Your task to perform on an android device: change the clock display to digital Image 0: 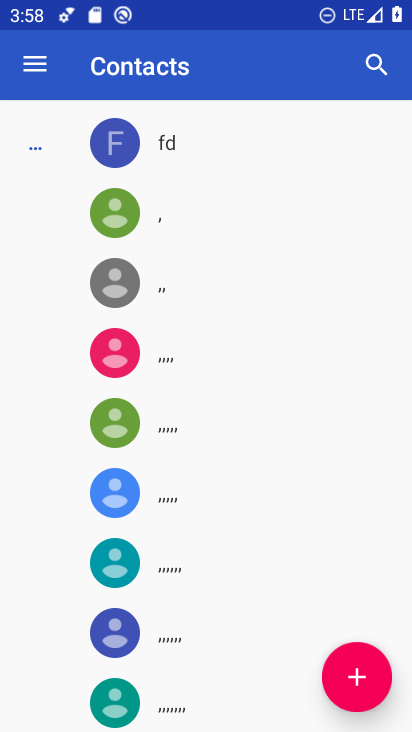
Step 0: press home button
Your task to perform on an android device: change the clock display to digital Image 1: 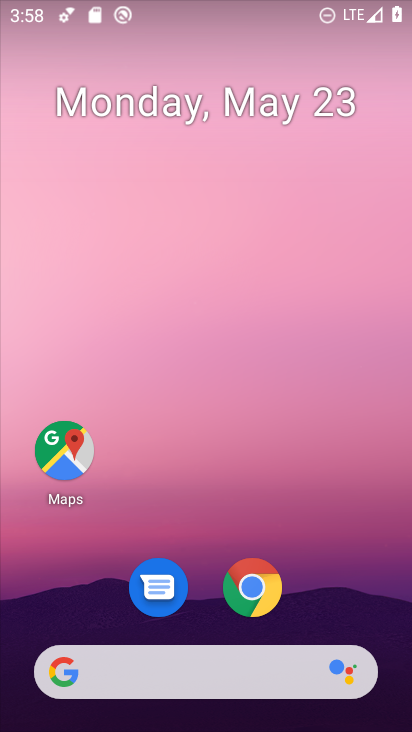
Step 1: drag from (205, 506) to (261, 12)
Your task to perform on an android device: change the clock display to digital Image 2: 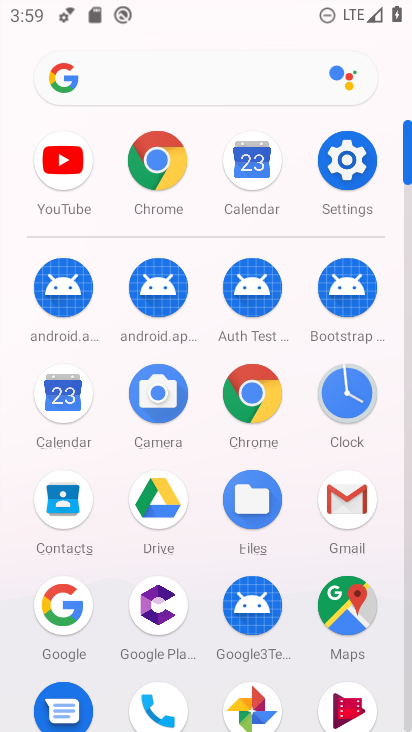
Step 2: click (342, 397)
Your task to perform on an android device: change the clock display to digital Image 3: 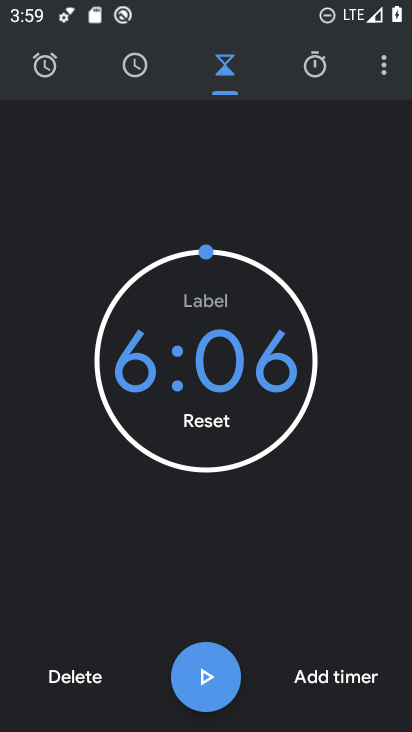
Step 3: click (384, 62)
Your task to perform on an android device: change the clock display to digital Image 4: 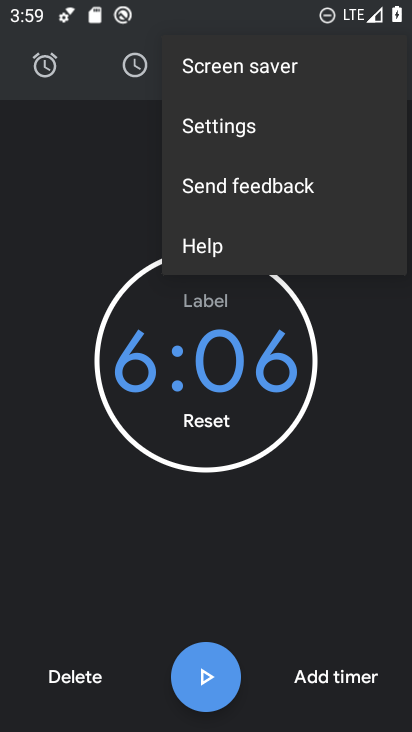
Step 4: click (203, 120)
Your task to perform on an android device: change the clock display to digital Image 5: 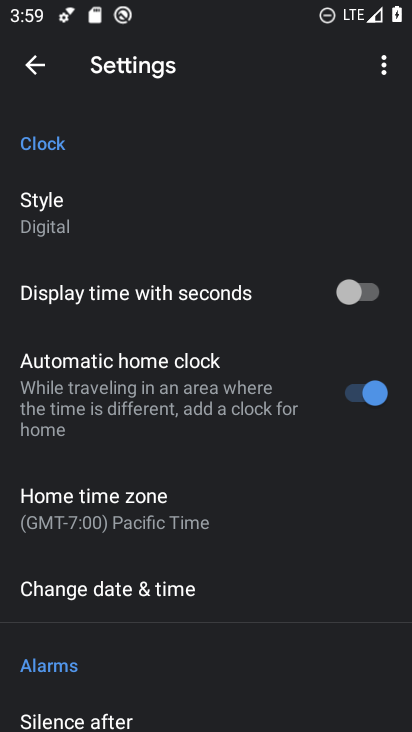
Step 5: click (50, 221)
Your task to perform on an android device: change the clock display to digital Image 6: 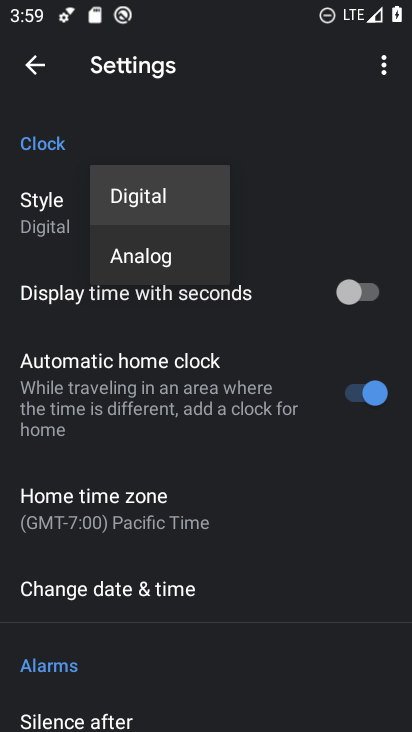
Step 6: task complete